Your task to perform on an android device: Check my gmail Image 0: 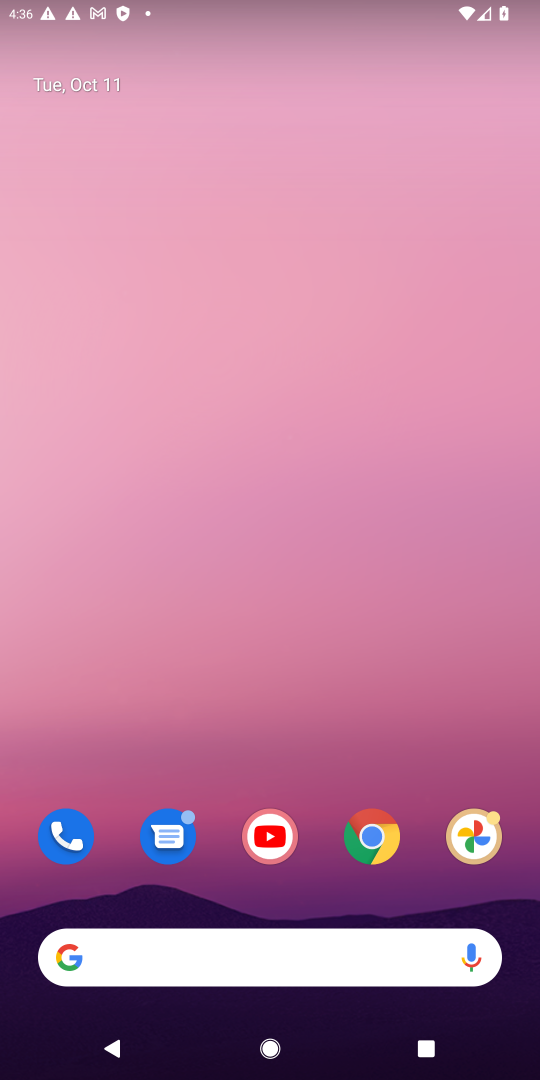
Step 0: drag from (297, 954) to (517, 189)
Your task to perform on an android device: Check my gmail Image 1: 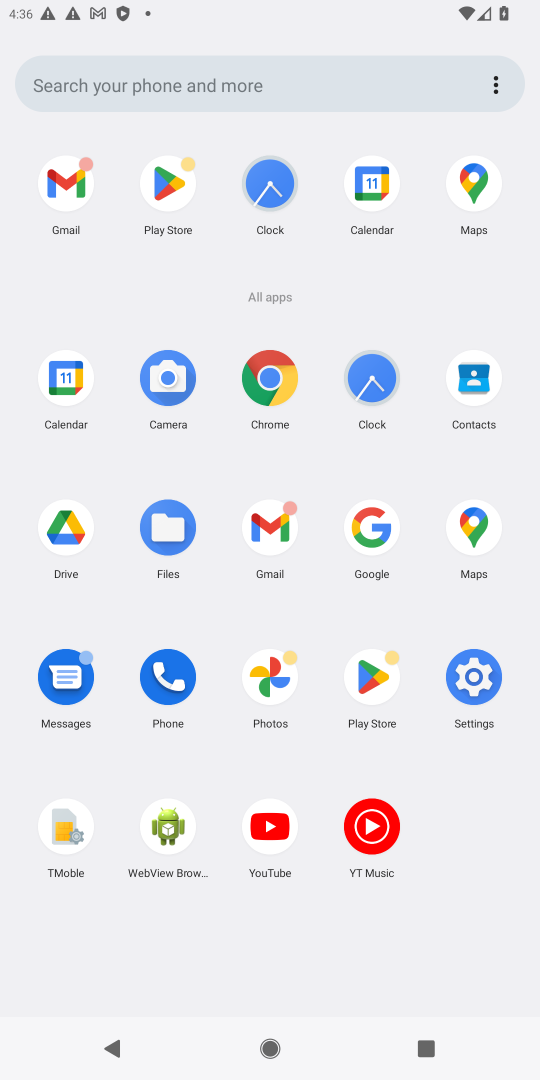
Step 1: click (68, 169)
Your task to perform on an android device: Check my gmail Image 2: 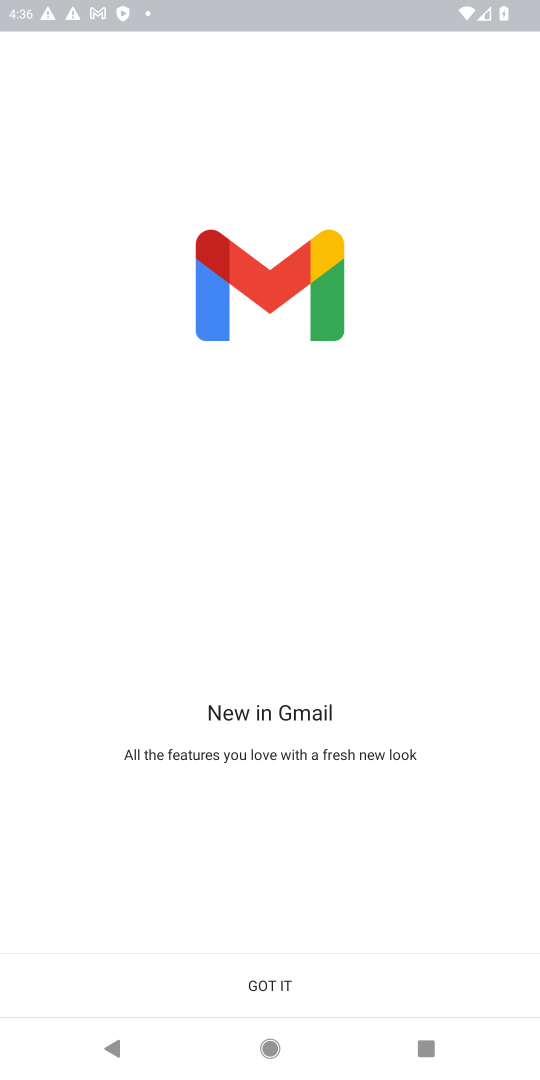
Step 2: click (249, 992)
Your task to perform on an android device: Check my gmail Image 3: 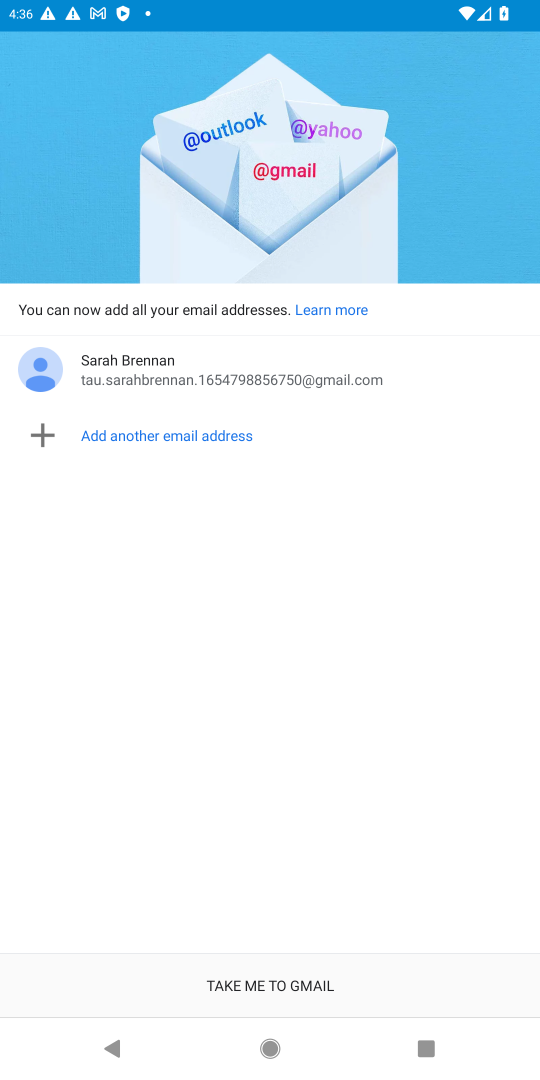
Step 3: click (252, 981)
Your task to perform on an android device: Check my gmail Image 4: 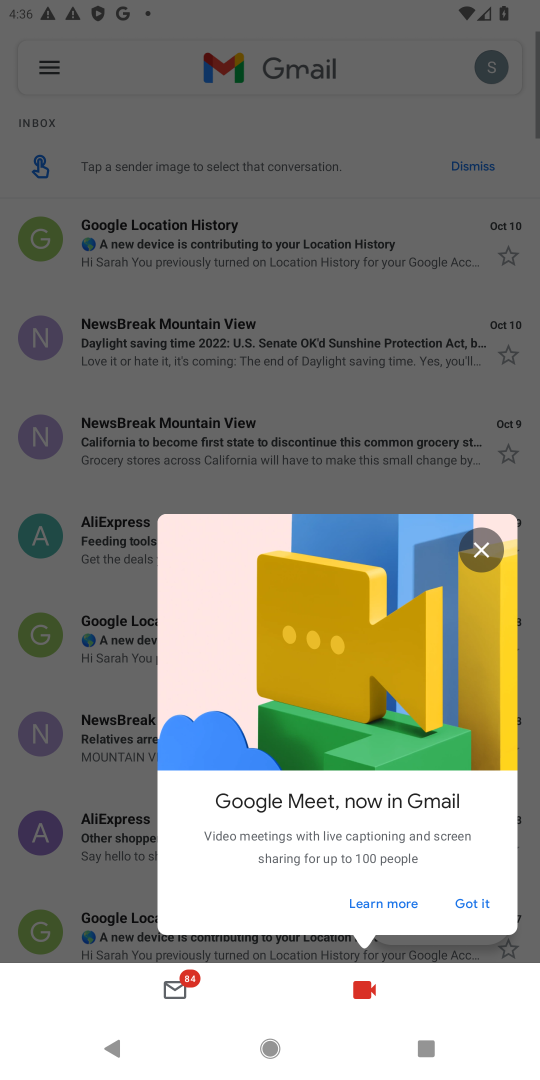
Step 4: click (484, 554)
Your task to perform on an android device: Check my gmail Image 5: 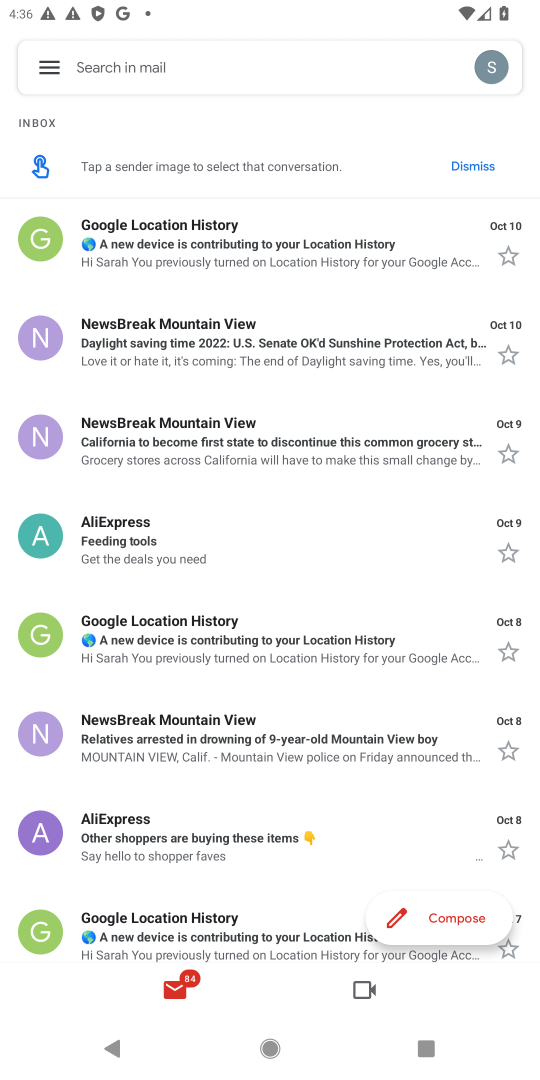
Step 5: task complete